Your task to perform on an android device: Open Google Maps Image 0: 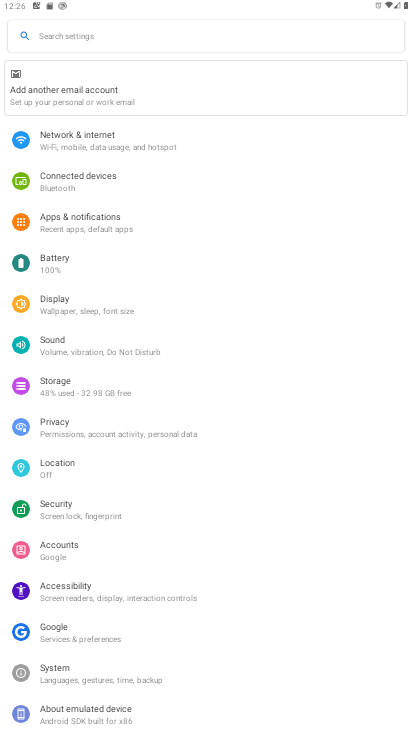
Step 0: press home button
Your task to perform on an android device: Open Google Maps Image 1: 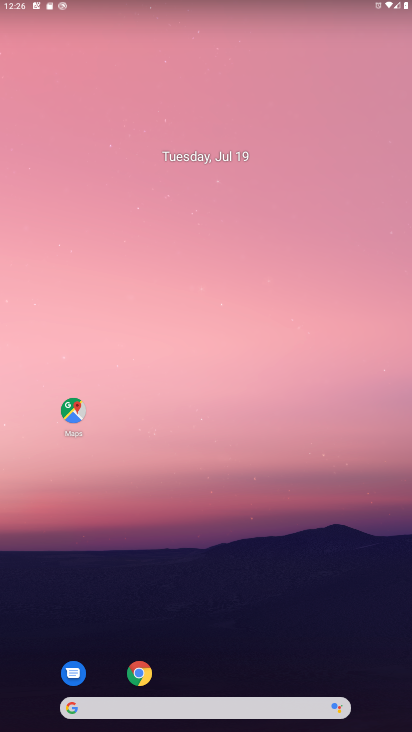
Step 1: click (83, 408)
Your task to perform on an android device: Open Google Maps Image 2: 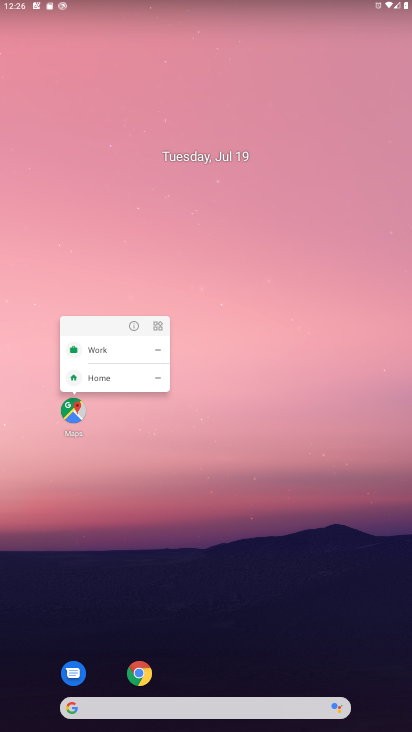
Step 2: click (76, 404)
Your task to perform on an android device: Open Google Maps Image 3: 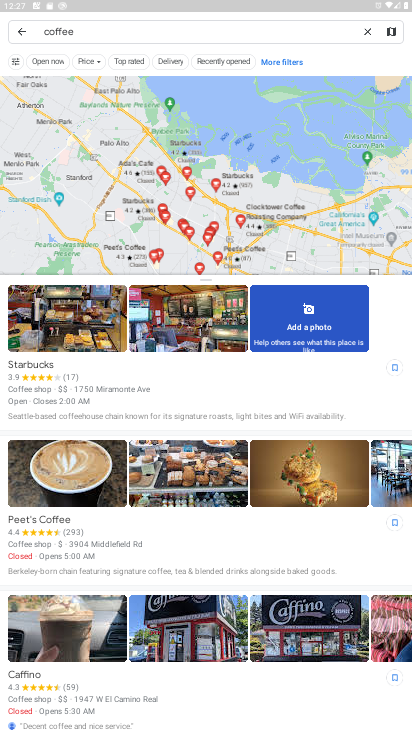
Step 3: task complete